Your task to perform on an android device: Open Google Maps Image 0: 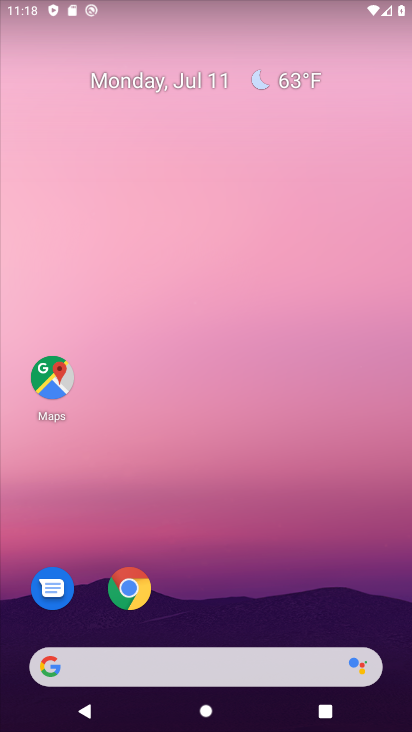
Step 0: drag from (247, 727) to (239, 104)
Your task to perform on an android device: Open Google Maps Image 1: 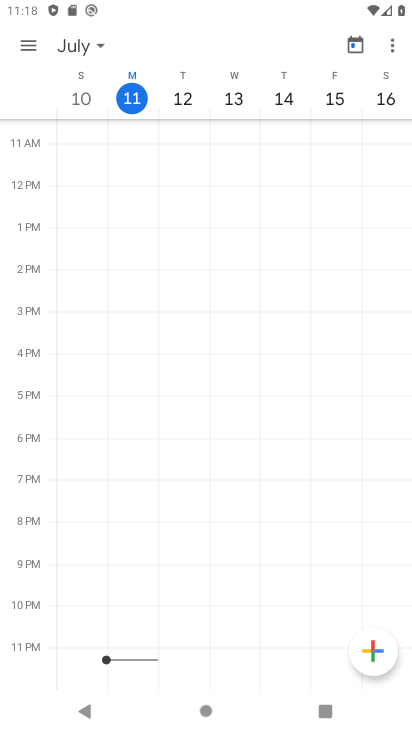
Step 1: press home button
Your task to perform on an android device: Open Google Maps Image 2: 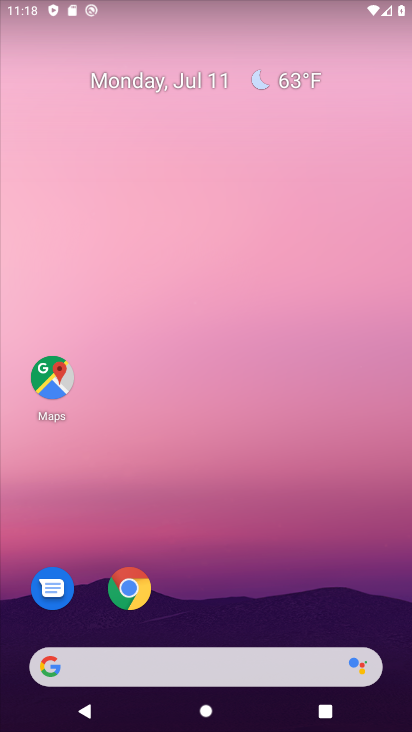
Step 2: drag from (247, 687) to (240, 174)
Your task to perform on an android device: Open Google Maps Image 3: 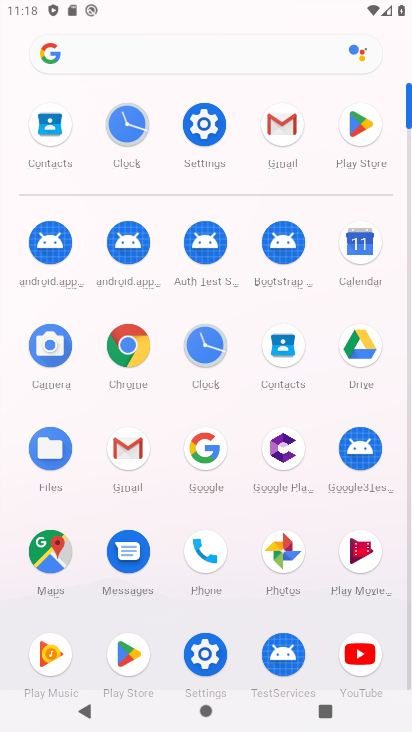
Step 3: click (51, 555)
Your task to perform on an android device: Open Google Maps Image 4: 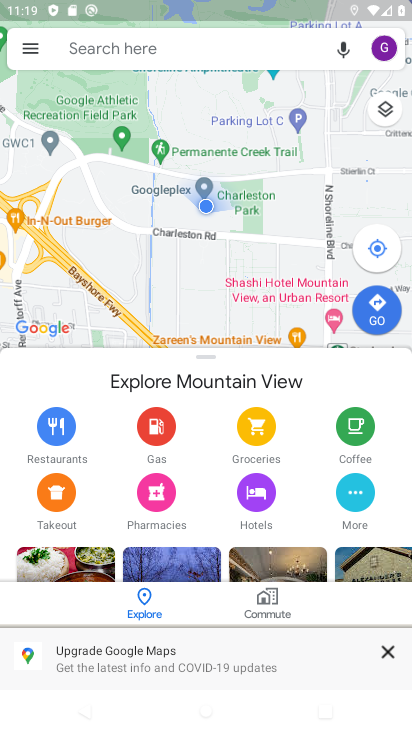
Step 4: task complete